Your task to perform on an android device: Show me the alarms in the clock app Image 0: 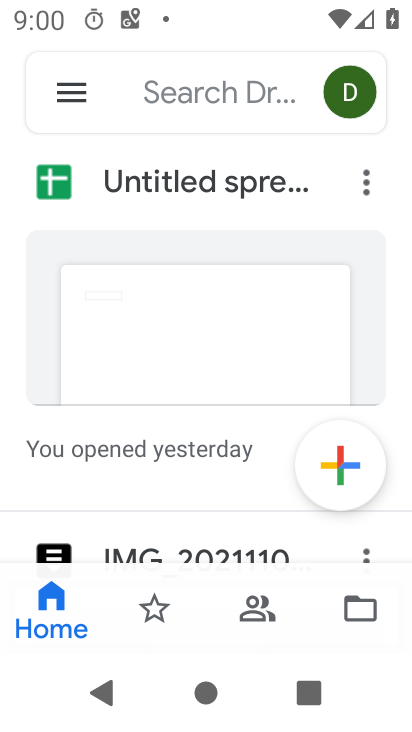
Step 0: press home button
Your task to perform on an android device: Show me the alarms in the clock app Image 1: 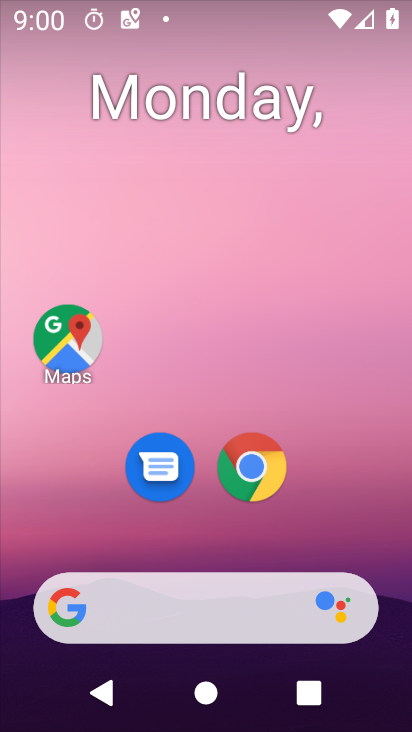
Step 1: drag from (193, 447) to (249, 23)
Your task to perform on an android device: Show me the alarms in the clock app Image 2: 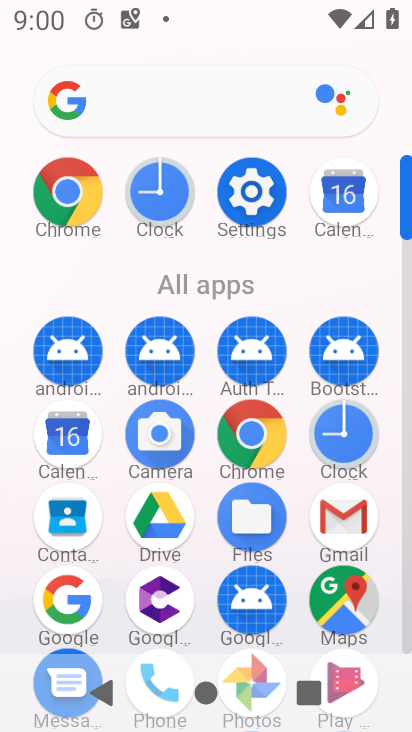
Step 2: click (344, 424)
Your task to perform on an android device: Show me the alarms in the clock app Image 3: 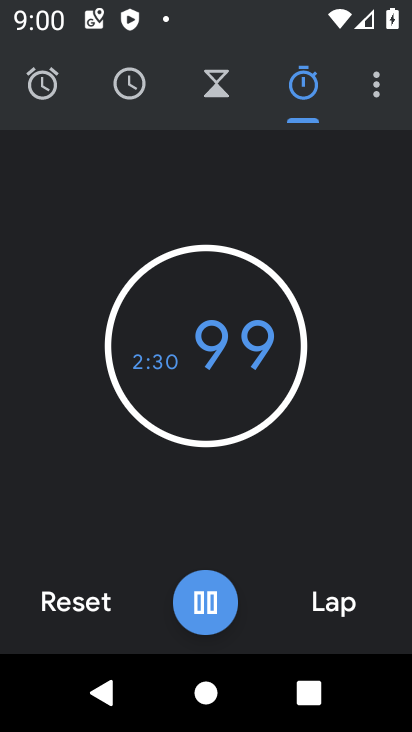
Step 3: click (56, 94)
Your task to perform on an android device: Show me the alarms in the clock app Image 4: 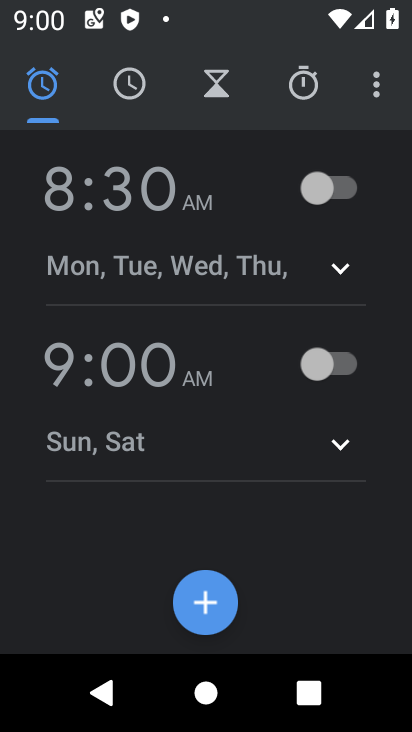
Step 4: task complete